Your task to perform on an android device: What is the recent news? Image 0: 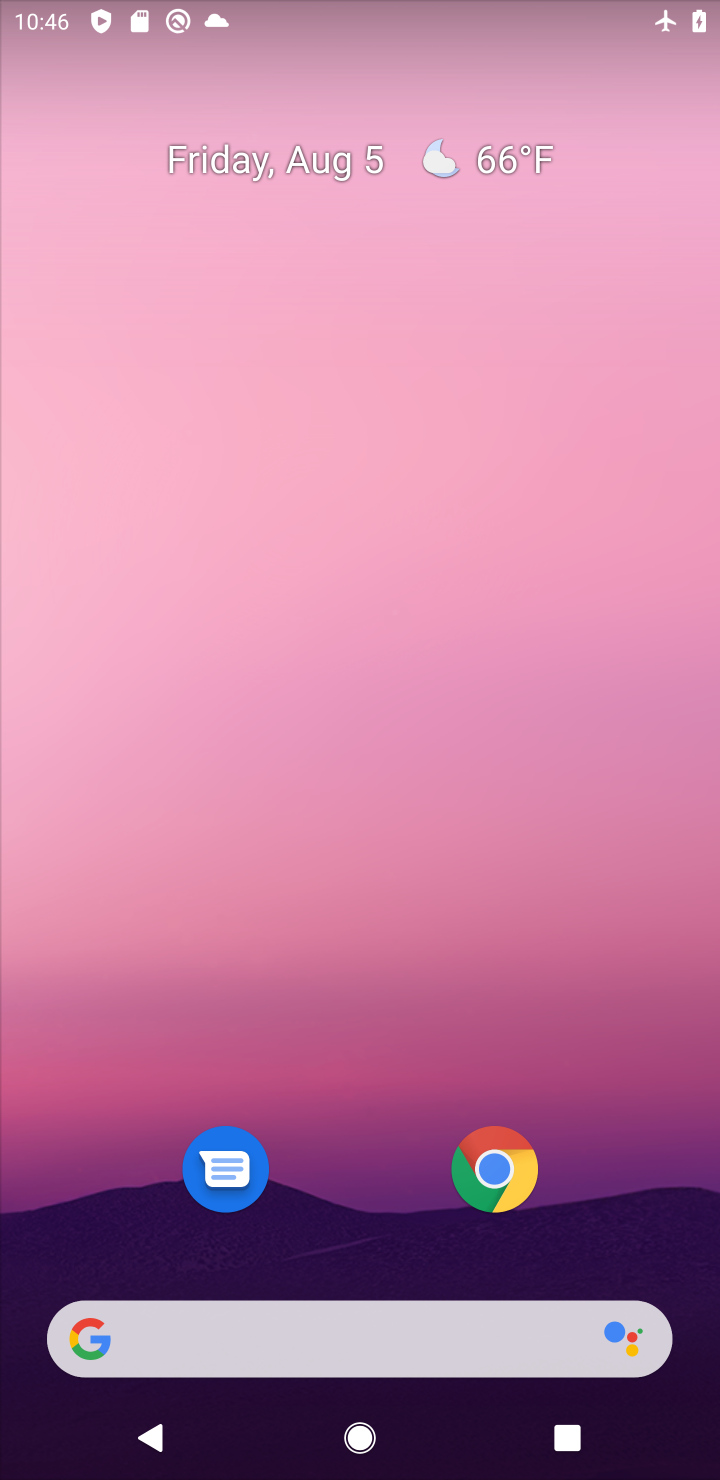
Step 0: drag from (59, 706) to (574, 711)
Your task to perform on an android device: What is the recent news? Image 1: 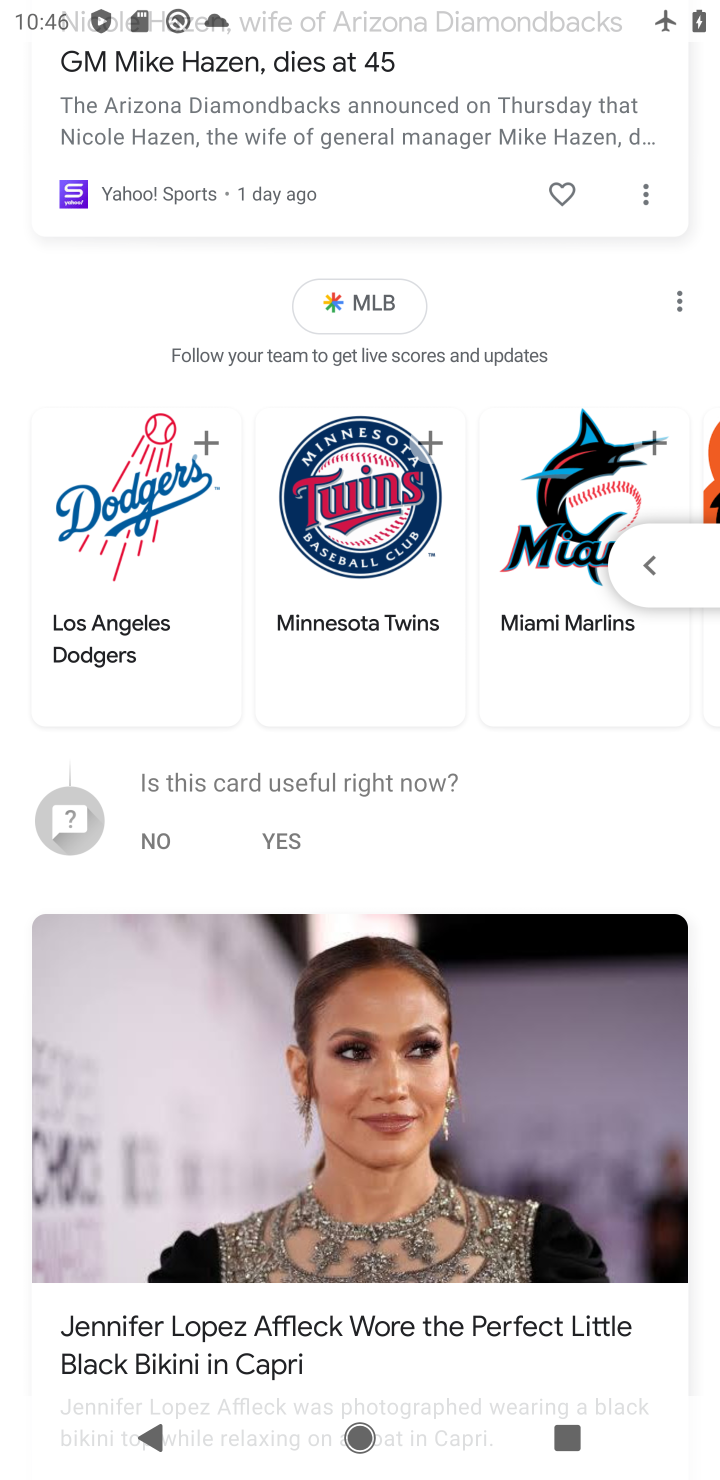
Step 1: task complete